Your task to perform on an android device: Search for seafood restaurants on Google Maps Image 0: 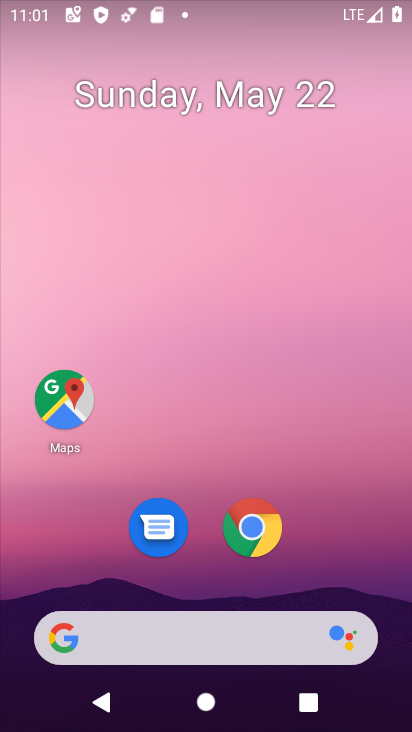
Step 0: click (60, 403)
Your task to perform on an android device: Search for seafood restaurants on Google Maps Image 1: 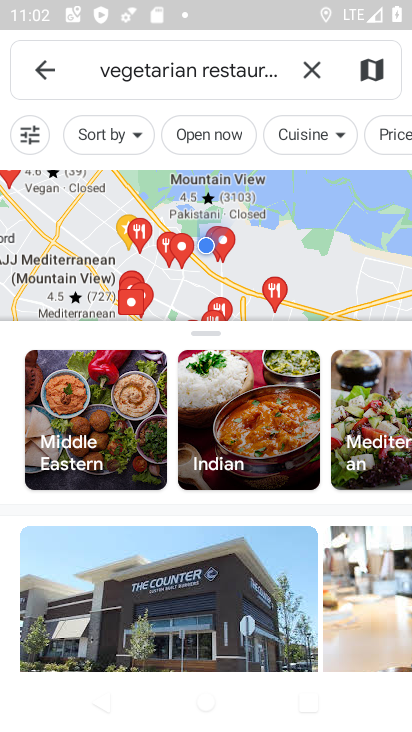
Step 1: click (308, 64)
Your task to perform on an android device: Search for seafood restaurants on Google Maps Image 2: 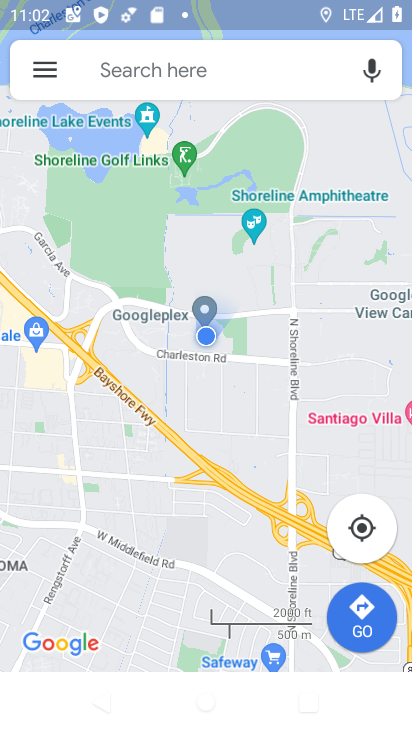
Step 2: click (258, 60)
Your task to perform on an android device: Search for seafood restaurants on Google Maps Image 3: 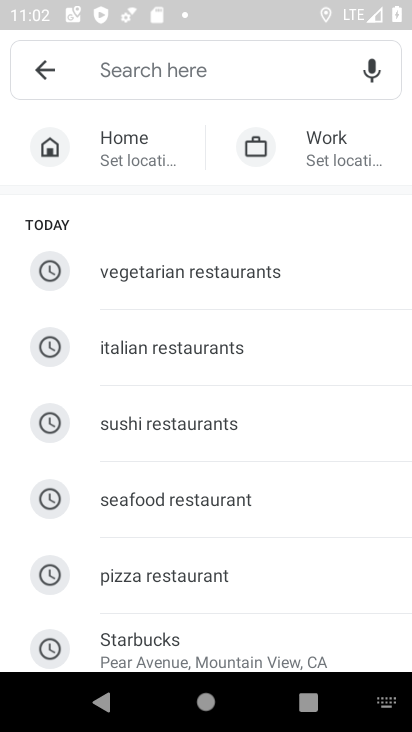
Step 3: click (178, 484)
Your task to perform on an android device: Search for seafood restaurants on Google Maps Image 4: 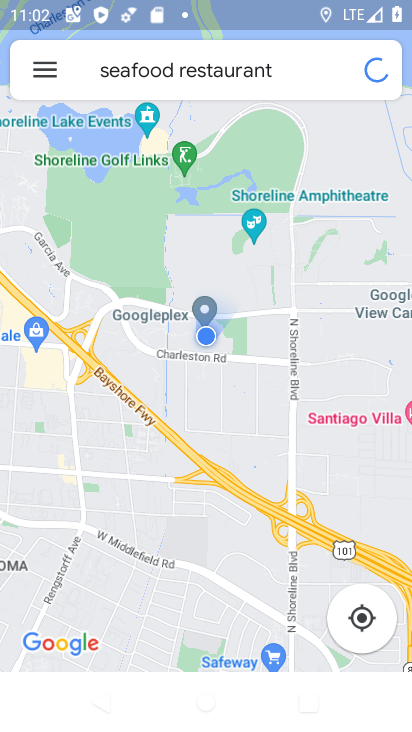
Step 4: task complete